Your task to perform on an android device: Search for Italian restaurants on Maps Image 0: 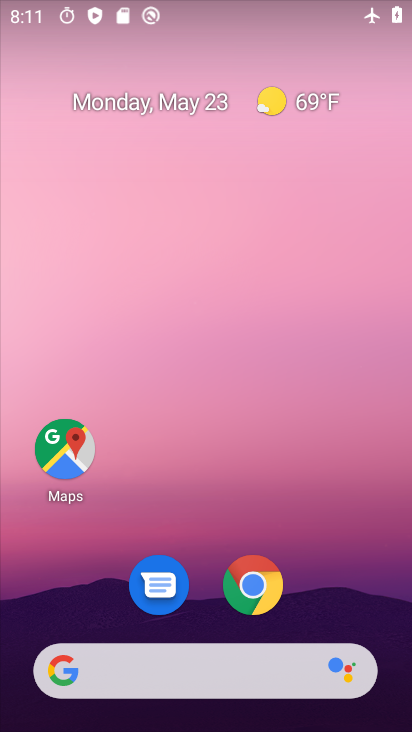
Step 0: click (70, 436)
Your task to perform on an android device: Search for Italian restaurants on Maps Image 1: 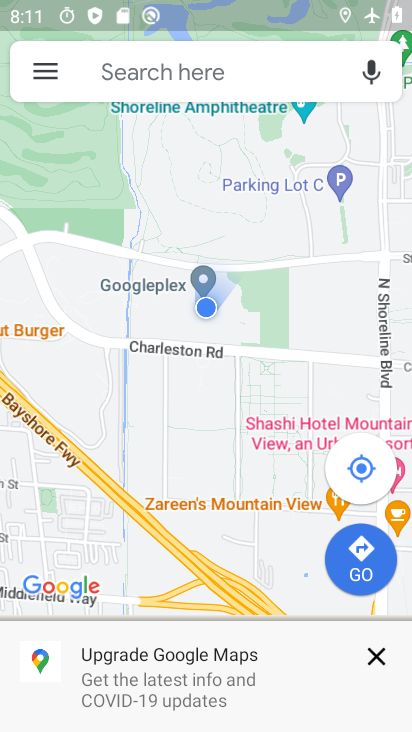
Step 1: click (265, 54)
Your task to perform on an android device: Search for Italian restaurants on Maps Image 2: 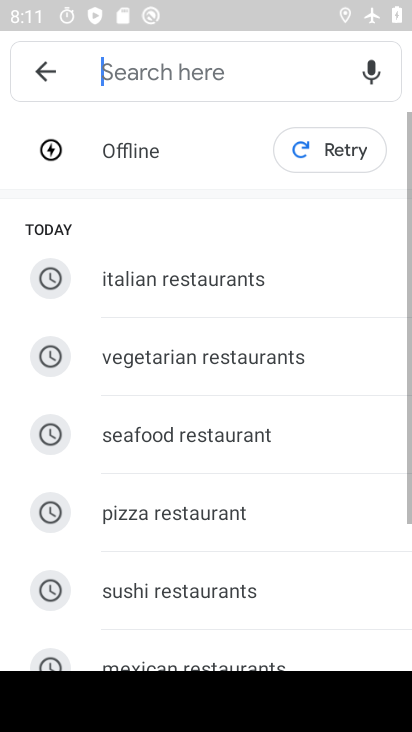
Step 2: click (199, 275)
Your task to perform on an android device: Search for Italian restaurants on Maps Image 3: 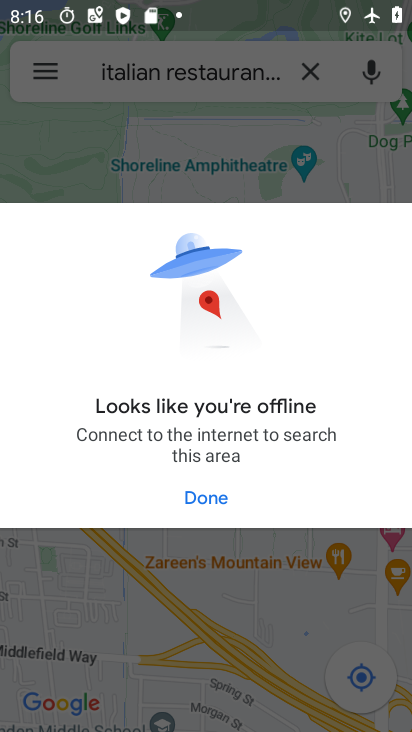
Step 3: task complete